Your task to perform on an android device: turn on improve location accuracy Image 0: 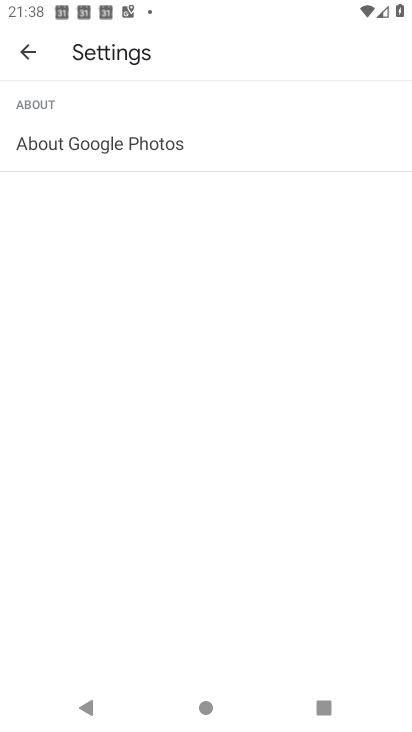
Step 0: press home button
Your task to perform on an android device: turn on improve location accuracy Image 1: 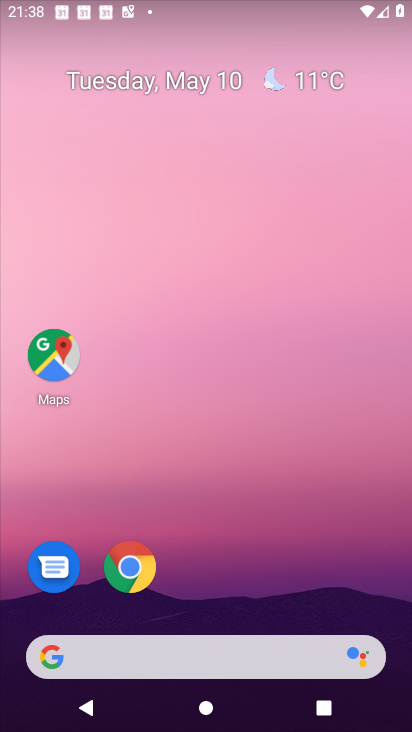
Step 1: drag from (207, 607) to (204, 321)
Your task to perform on an android device: turn on improve location accuracy Image 2: 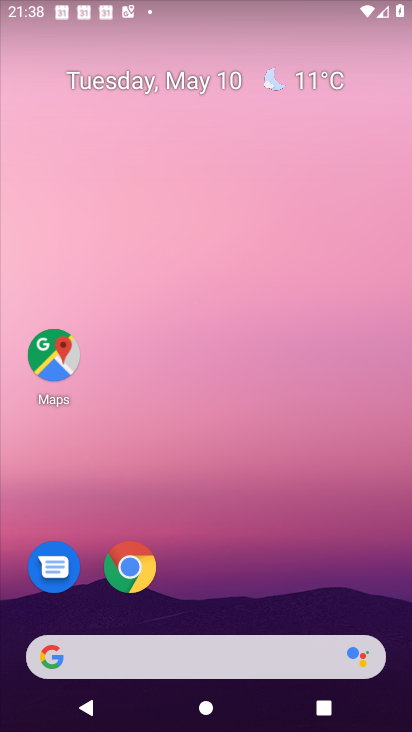
Step 2: drag from (235, 546) to (235, 192)
Your task to perform on an android device: turn on improve location accuracy Image 3: 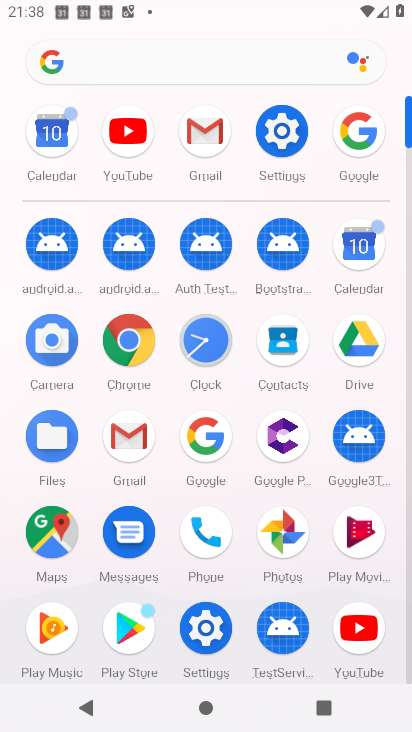
Step 3: click (304, 143)
Your task to perform on an android device: turn on improve location accuracy Image 4: 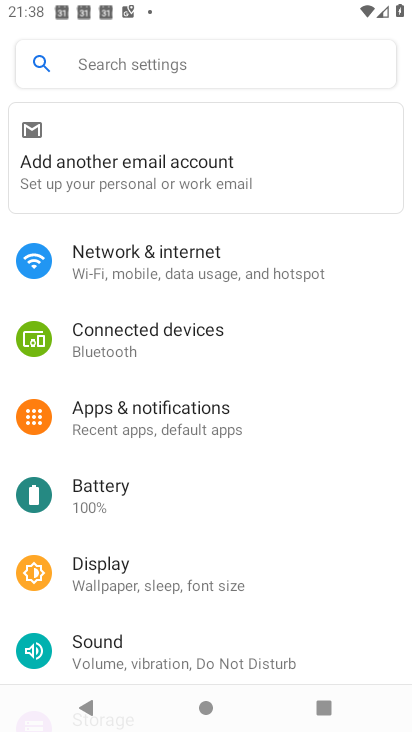
Step 4: drag from (137, 644) to (136, 326)
Your task to perform on an android device: turn on improve location accuracy Image 5: 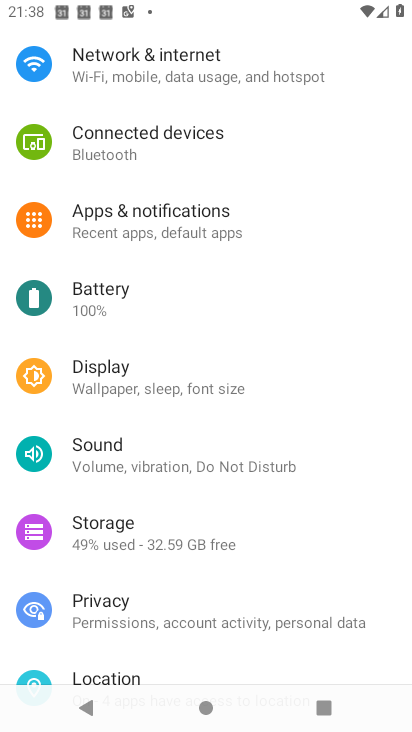
Step 5: click (120, 671)
Your task to perform on an android device: turn on improve location accuracy Image 6: 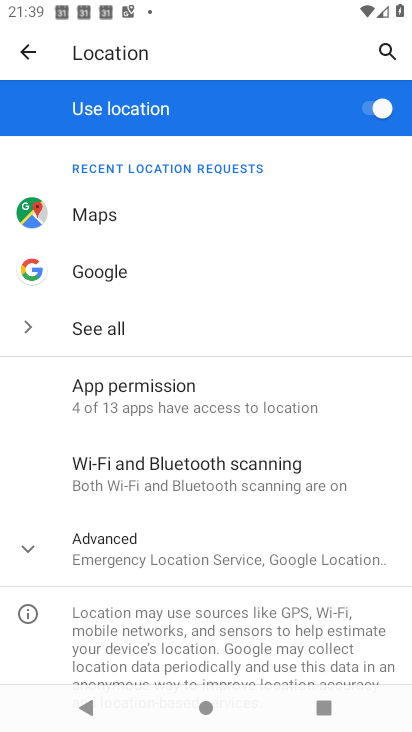
Step 6: click (100, 552)
Your task to perform on an android device: turn on improve location accuracy Image 7: 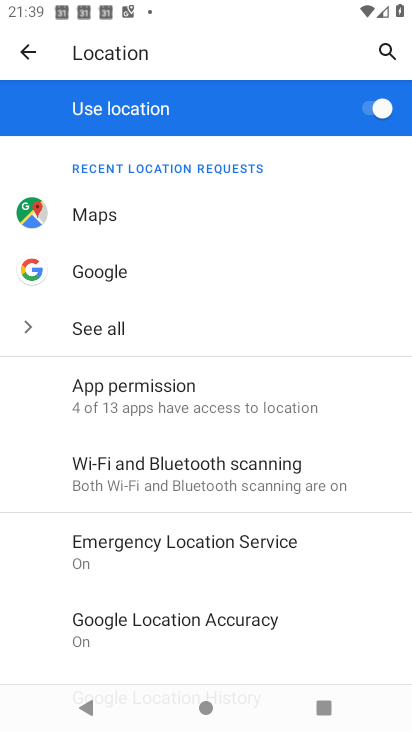
Step 7: drag from (163, 657) to (163, 374)
Your task to perform on an android device: turn on improve location accuracy Image 8: 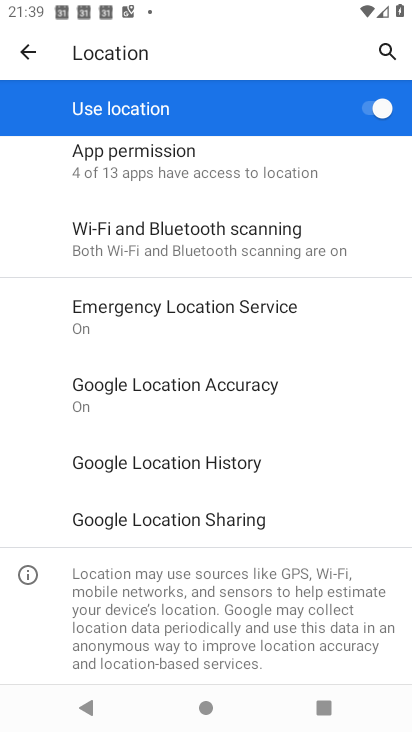
Step 8: click (141, 378)
Your task to perform on an android device: turn on improve location accuracy Image 9: 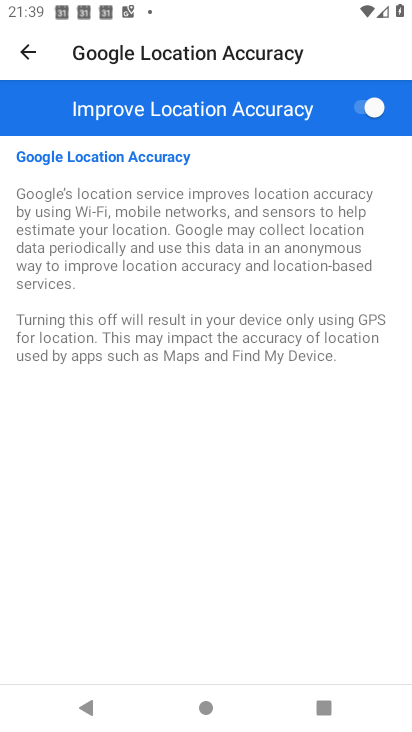
Step 9: task complete